Your task to perform on an android device: clear all cookies in the chrome app Image 0: 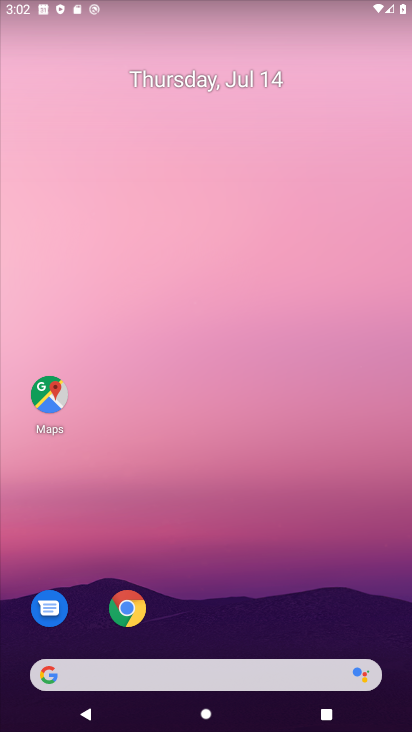
Step 0: click (132, 610)
Your task to perform on an android device: clear all cookies in the chrome app Image 1: 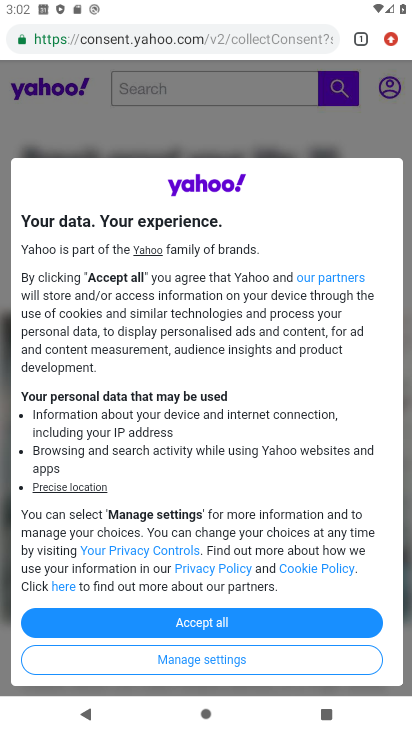
Step 1: click (394, 34)
Your task to perform on an android device: clear all cookies in the chrome app Image 2: 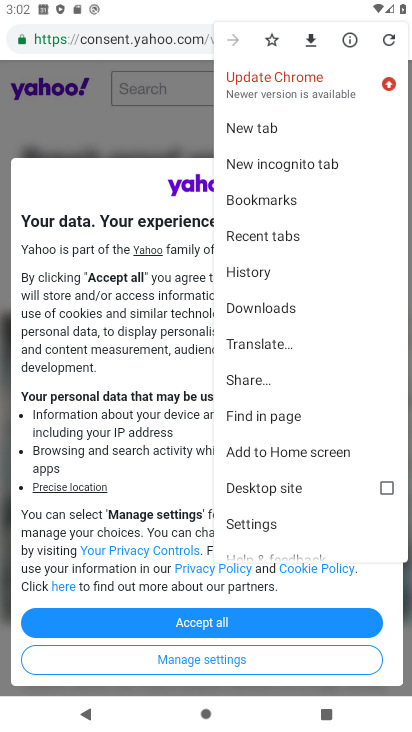
Step 2: click (272, 282)
Your task to perform on an android device: clear all cookies in the chrome app Image 3: 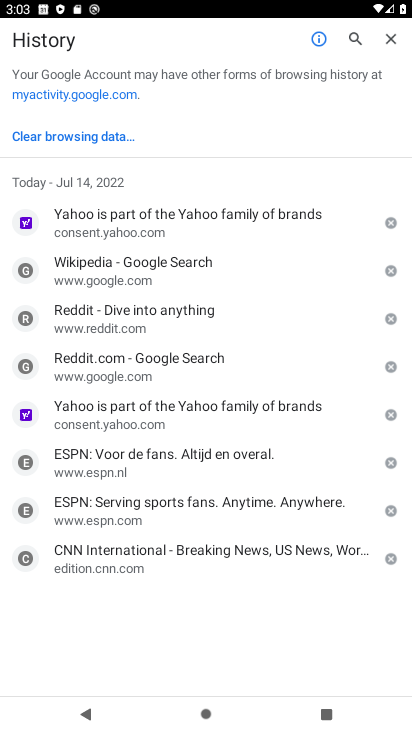
Step 3: click (28, 139)
Your task to perform on an android device: clear all cookies in the chrome app Image 4: 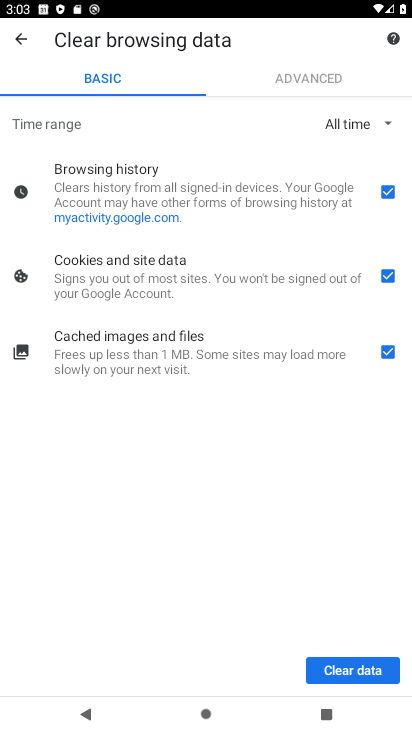
Step 4: click (379, 198)
Your task to perform on an android device: clear all cookies in the chrome app Image 5: 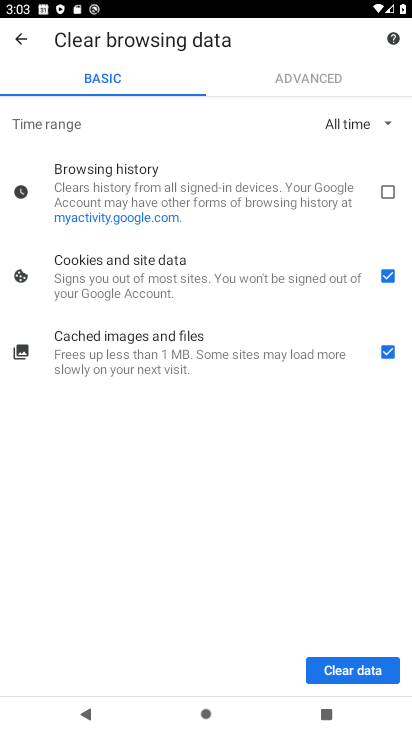
Step 5: click (382, 347)
Your task to perform on an android device: clear all cookies in the chrome app Image 6: 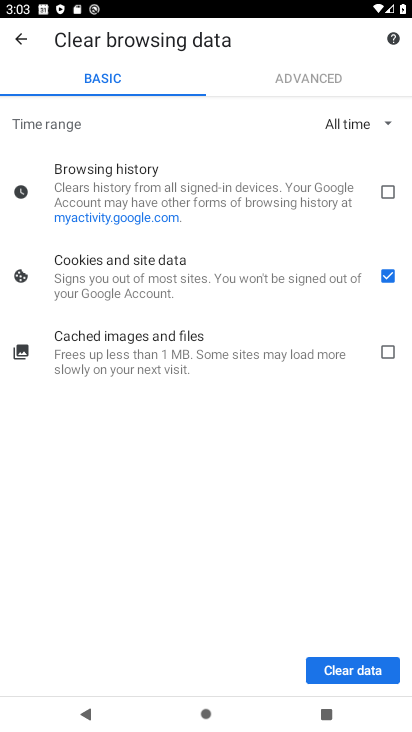
Step 6: click (351, 672)
Your task to perform on an android device: clear all cookies in the chrome app Image 7: 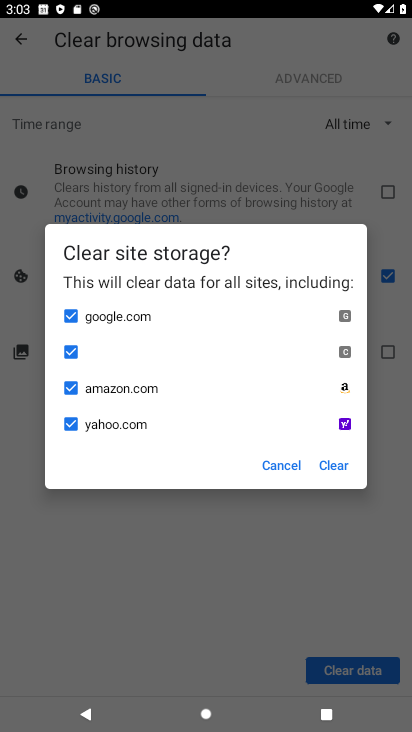
Step 7: click (332, 465)
Your task to perform on an android device: clear all cookies in the chrome app Image 8: 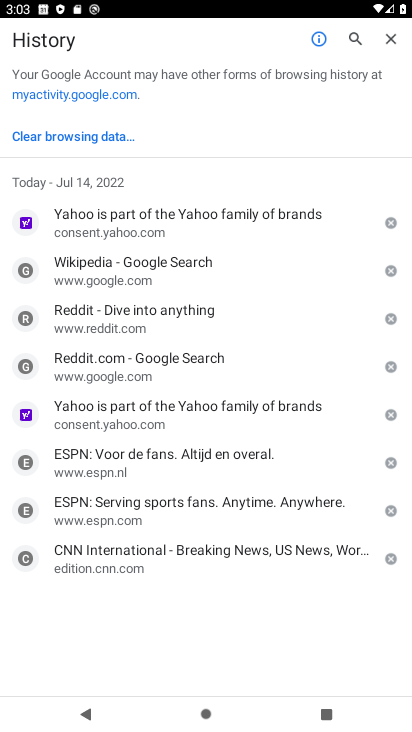
Step 8: task complete